Your task to perform on an android device: turn off translation in the chrome app Image 0: 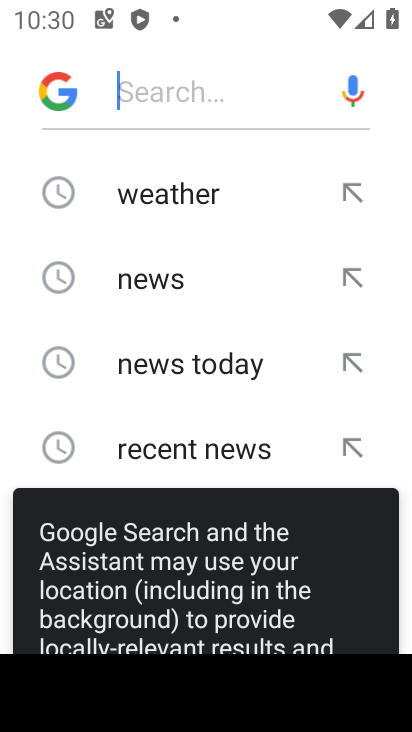
Step 0: press home button
Your task to perform on an android device: turn off translation in the chrome app Image 1: 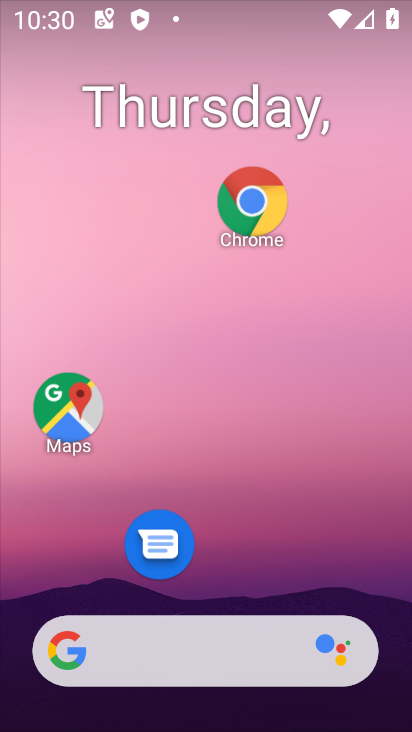
Step 1: click (246, 196)
Your task to perform on an android device: turn off translation in the chrome app Image 2: 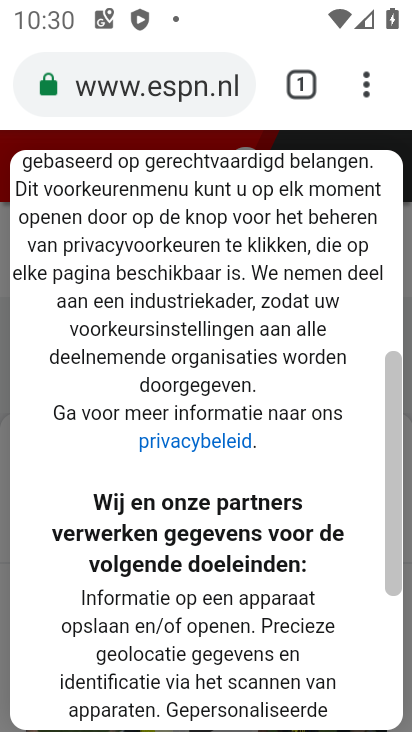
Step 2: drag from (192, 660) to (196, 280)
Your task to perform on an android device: turn off translation in the chrome app Image 3: 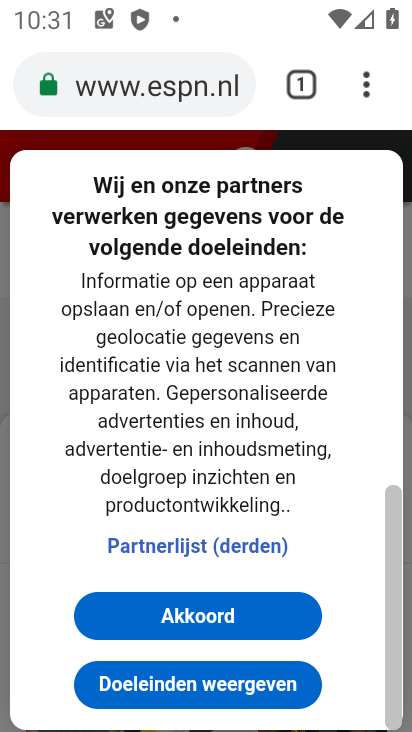
Step 3: click (369, 78)
Your task to perform on an android device: turn off translation in the chrome app Image 4: 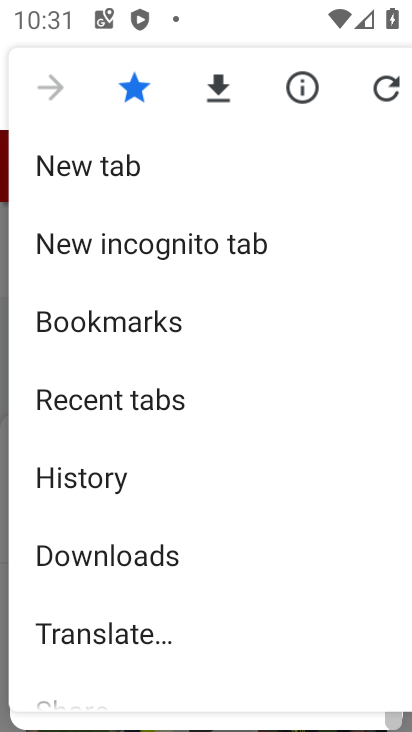
Step 4: drag from (196, 619) to (185, 63)
Your task to perform on an android device: turn off translation in the chrome app Image 5: 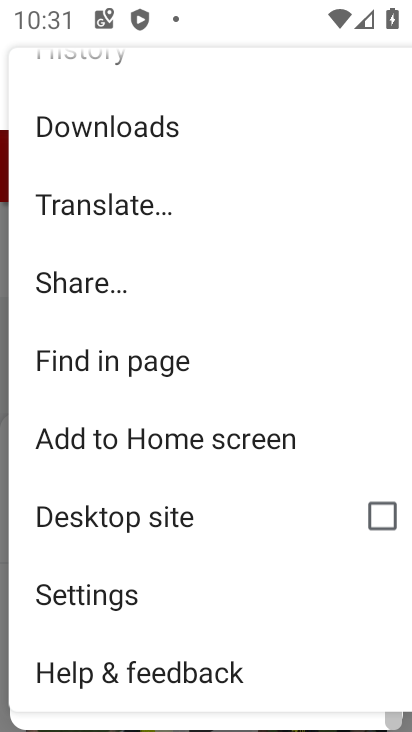
Step 5: drag from (181, 639) to (193, 233)
Your task to perform on an android device: turn off translation in the chrome app Image 6: 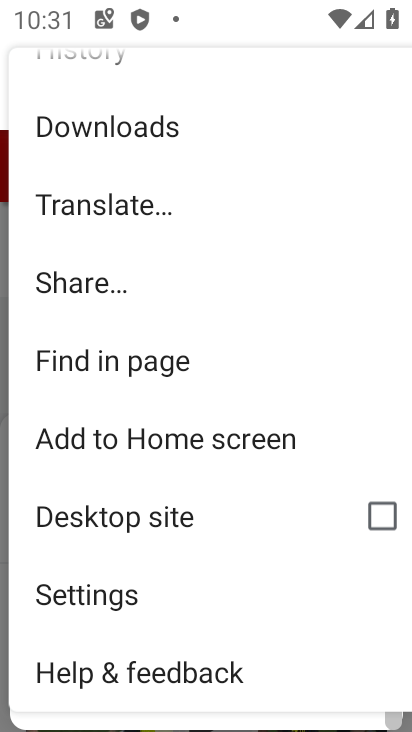
Step 6: click (143, 597)
Your task to perform on an android device: turn off translation in the chrome app Image 7: 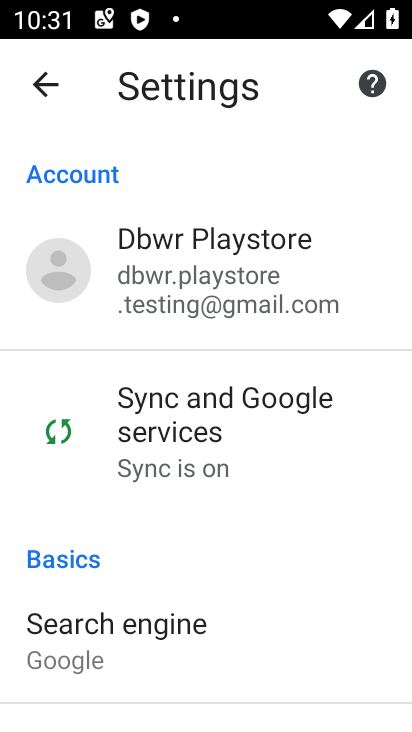
Step 7: drag from (207, 660) to (230, 153)
Your task to perform on an android device: turn off translation in the chrome app Image 8: 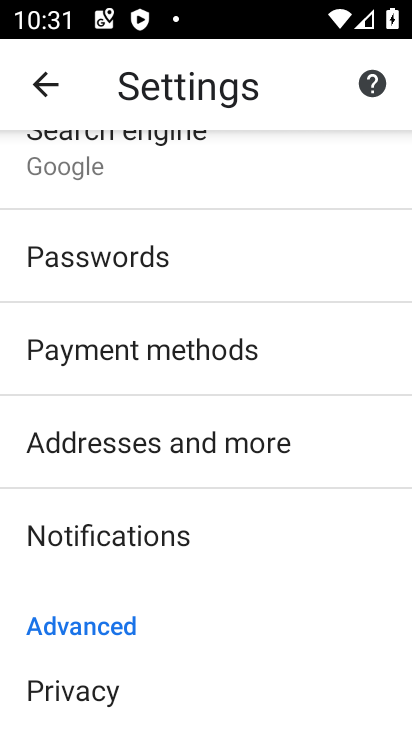
Step 8: drag from (214, 672) to (236, 149)
Your task to perform on an android device: turn off translation in the chrome app Image 9: 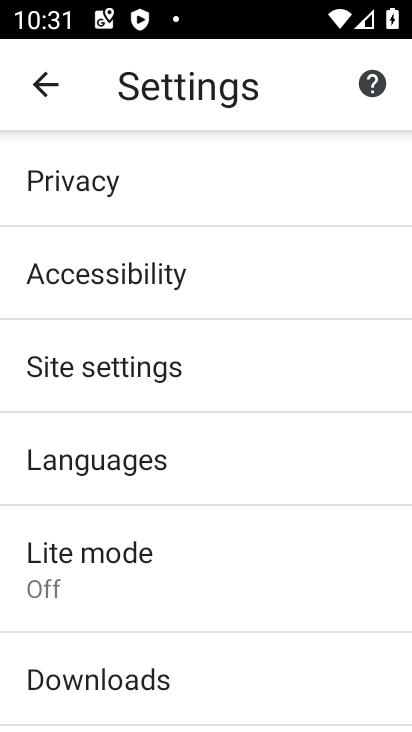
Step 9: click (194, 460)
Your task to perform on an android device: turn off translation in the chrome app Image 10: 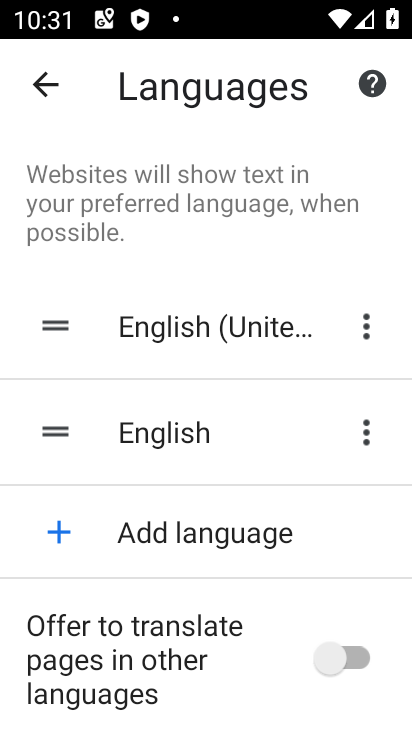
Step 10: task complete